Your task to perform on an android device: Go to Wikipedia Image 0: 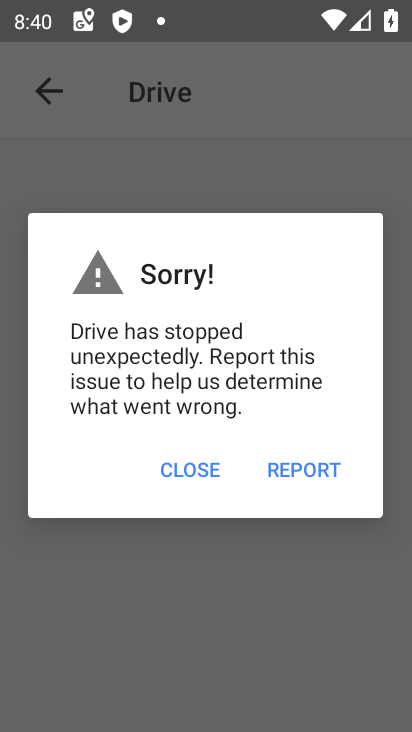
Step 0: press home button
Your task to perform on an android device: Go to Wikipedia Image 1: 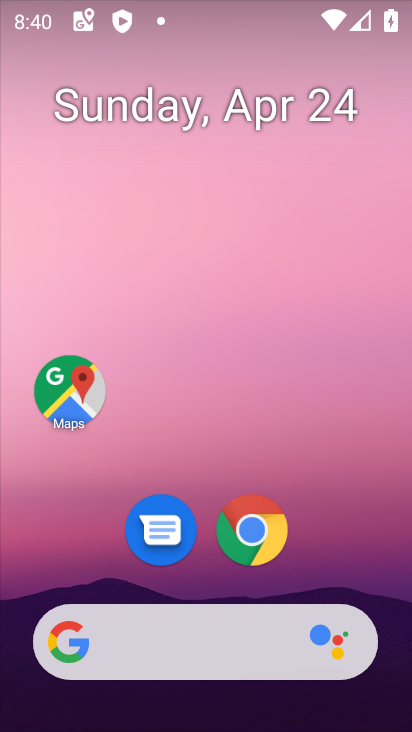
Step 1: click (255, 532)
Your task to perform on an android device: Go to Wikipedia Image 2: 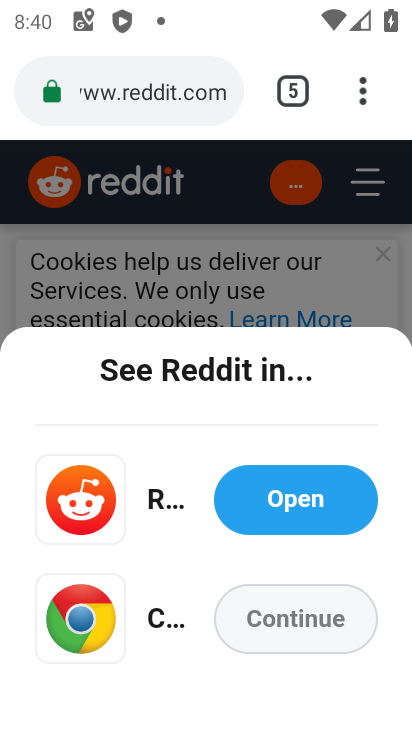
Step 2: click (288, 95)
Your task to perform on an android device: Go to Wikipedia Image 3: 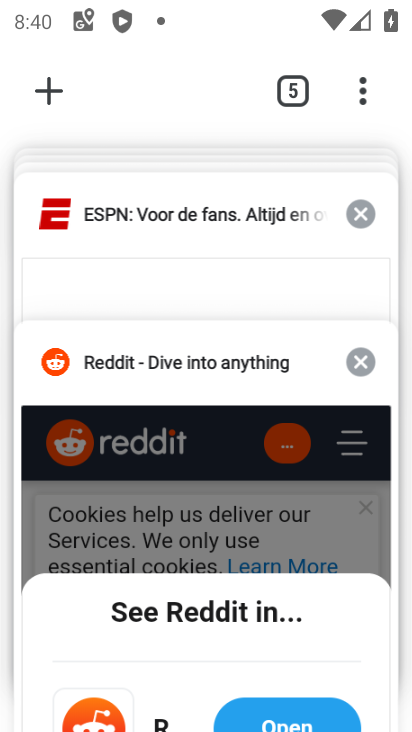
Step 3: click (51, 99)
Your task to perform on an android device: Go to Wikipedia Image 4: 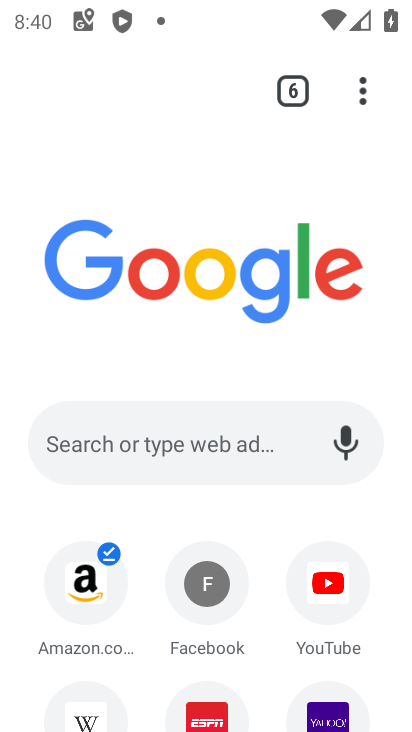
Step 4: click (96, 698)
Your task to perform on an android device: Go to Wikipedia Image 5: 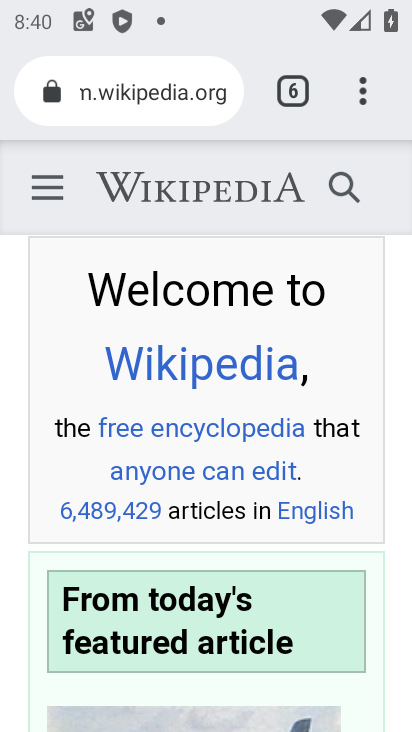
Step 5: task complete